Your task to perform on an android device: Show me the alarms in the clock app Image 0: 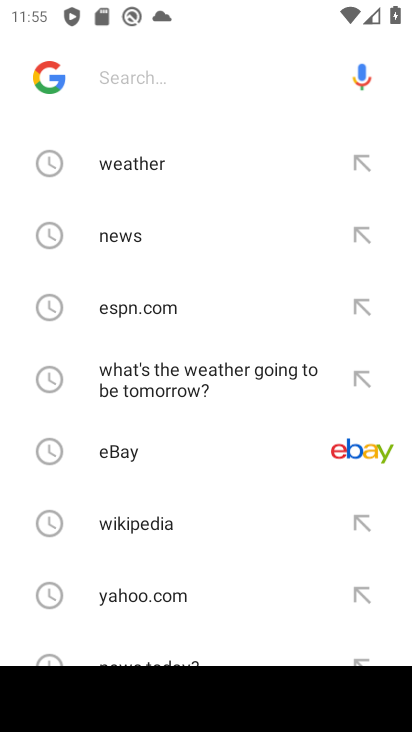
Step 0: press home button
Your task to perform on an android device: Show me the alarms in the clock app Image 1: 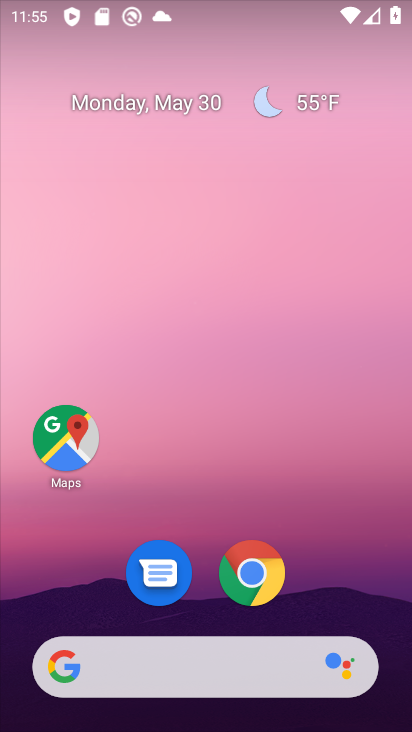
Step 1: drag from (60, 597) to (231, 130)
Your task to perform on an android device: Show me the alarms in the clock app Image 2: 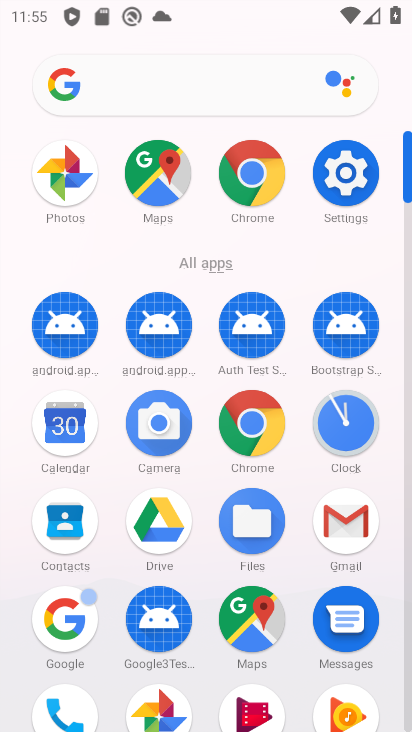
Step 2: click (349, 443)
Your task to perform on an android device: Show me the alarms in the clock app Image 3: 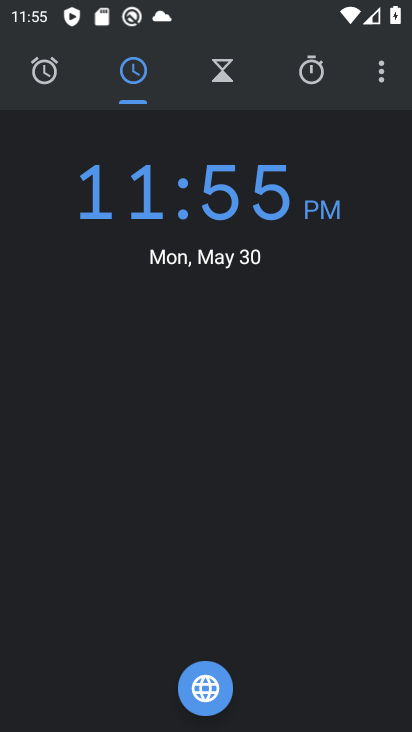
Step 3: click (53, 75)
Your task to perform on an android device: Show me the alarms in the clock app Image 4: 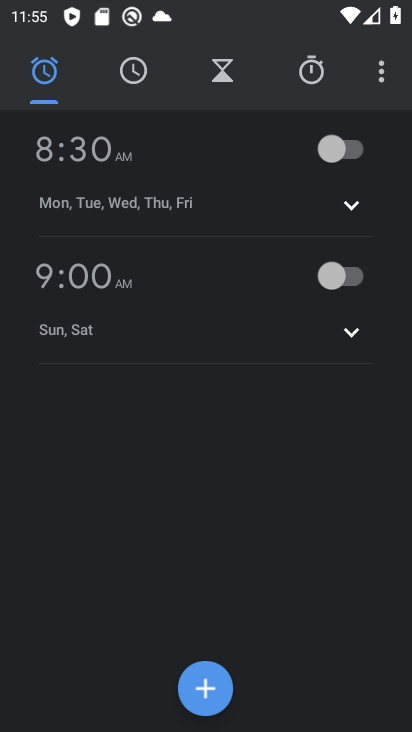
Step 4: task complete